Your task to perform on an android device: clear history in the chrome app Image 0: 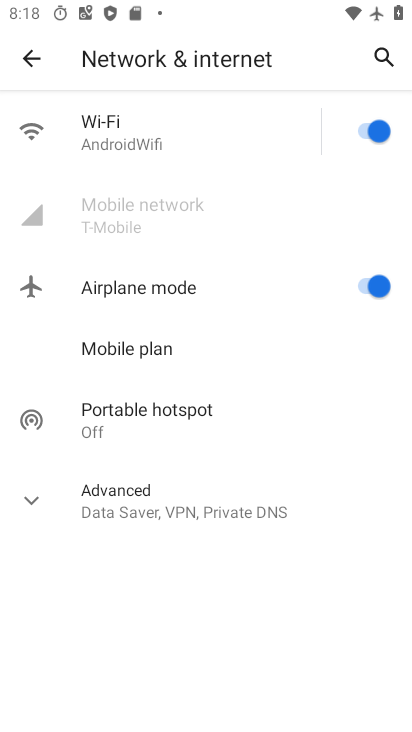
Step 0: click (19, 57)
Your task to perform on an android device: clear history in the chrome app Image 1: 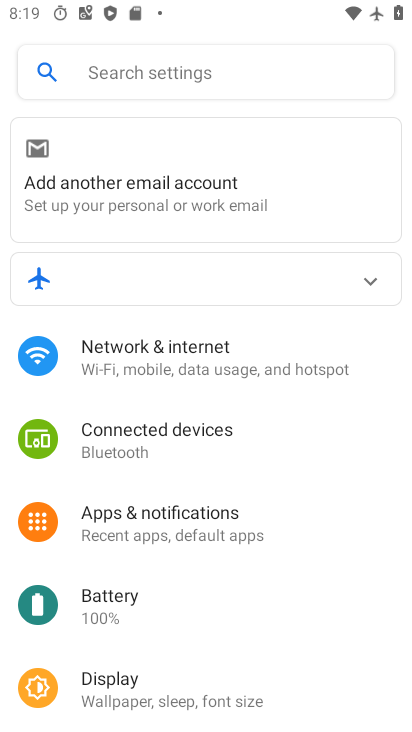
Step 1: press back button
Your task to perform on an android device: clear history in the chrome app Image 2: 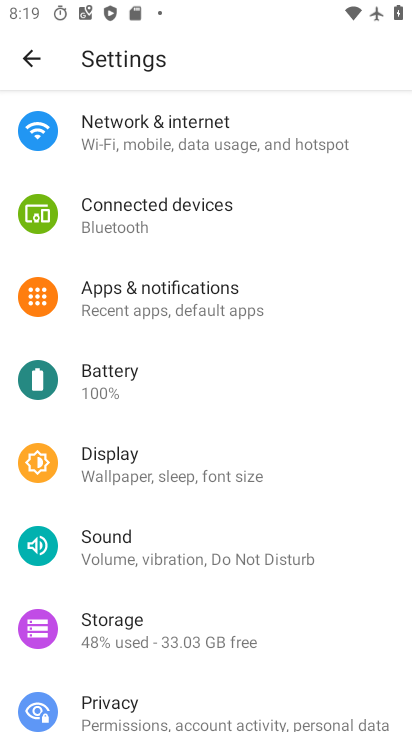
Step 2: press home button
Your task to perform on an android device: clear history in the chrome app Image 3: 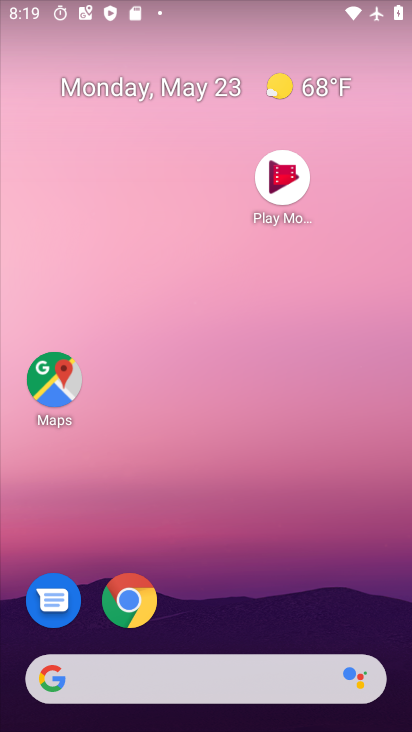
Step 3: drag from (254, 670) to (235, 348)
Your task to perform on an android device: clear history in the chrome app Image 4: 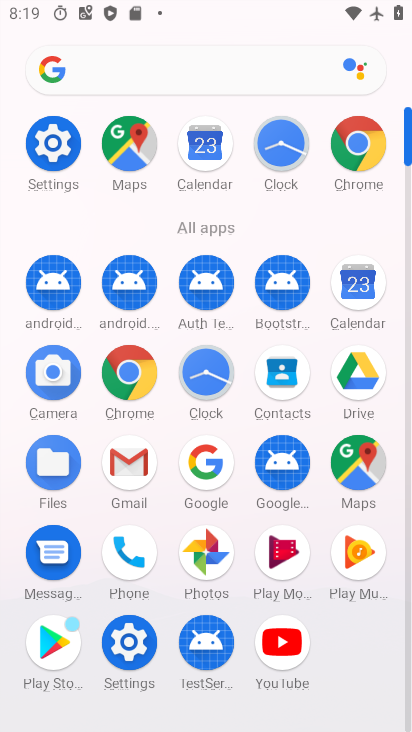
Step 4: click (373, 143)
Your task to perform on an android device: clear history in the chrome app Image 5: 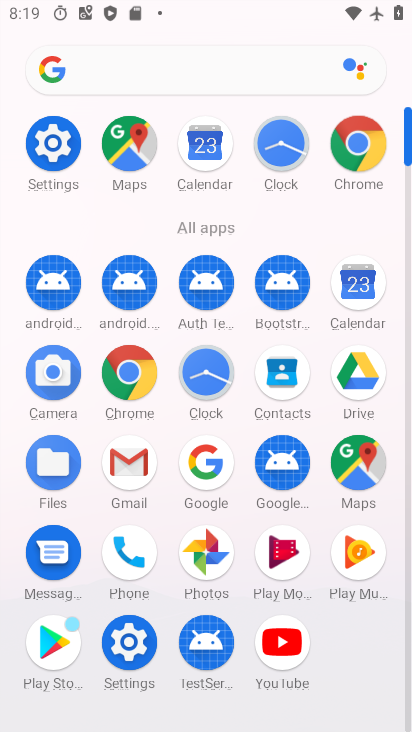
Step 5: click (373, 143)
Your task to perform on an android device: clear history in the chrome app Image 6: 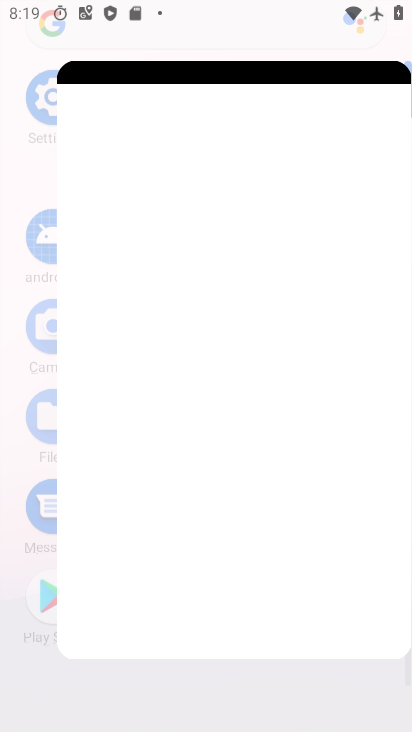
Step 6: click (372, 143)
Your task to perform on an android device: clear history in the chrome app Image 7: 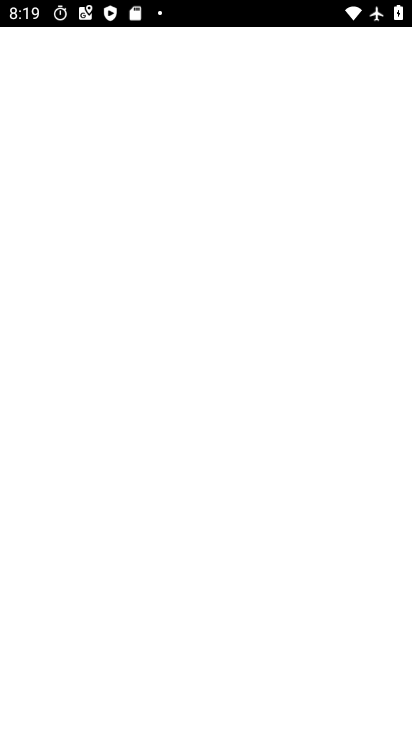
Step 7: click (363, 145)
Your task to perform on an android device: clear history in the chrome app Image 8: 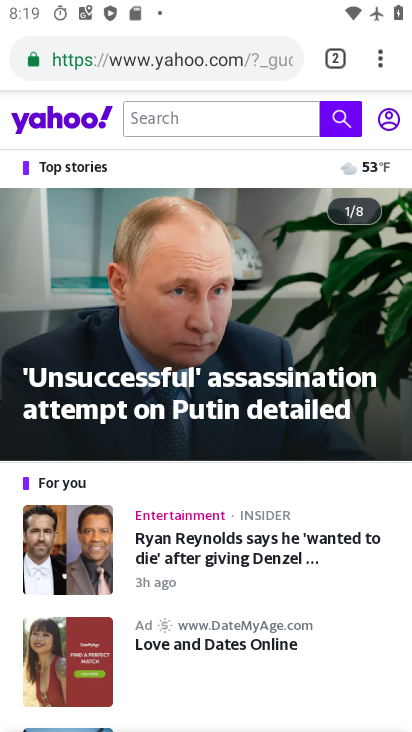
Step 8: drag from (378, 65) to (167, 350)
Your task to perform on an android device: clear history in the chrome app Image 9: 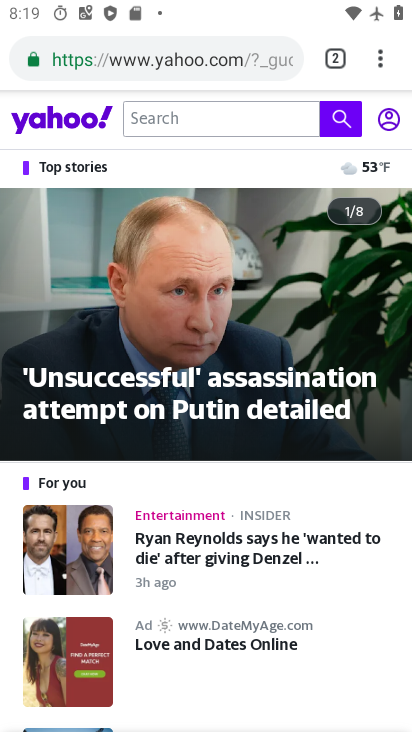
Step 9: click (160, 337)
Your task to perform on an android device: clear history in the chrome app Image 10: 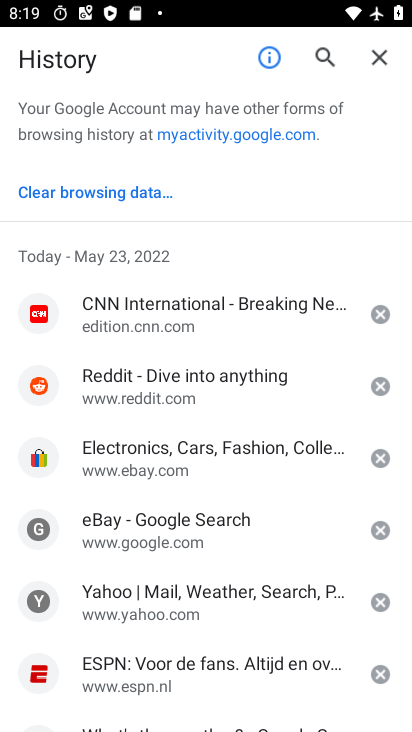
Step 10: click (114, 187)
Your task to perform on an android device: clear history in the chrome app Image 11: 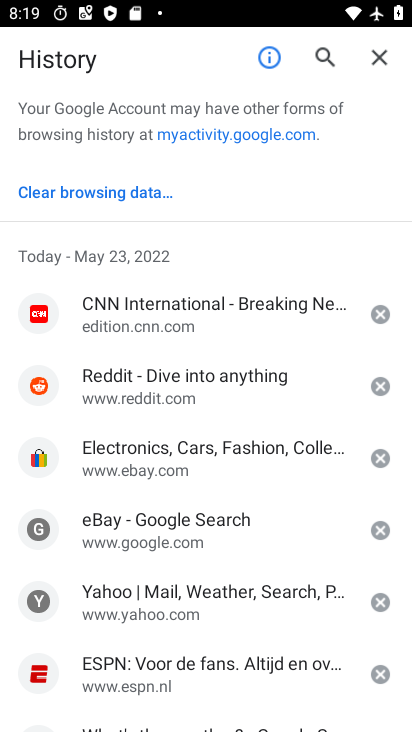
Step 11: click (110, 185)
Your task to perform on an android device: clear history in the chrome app Image 12: 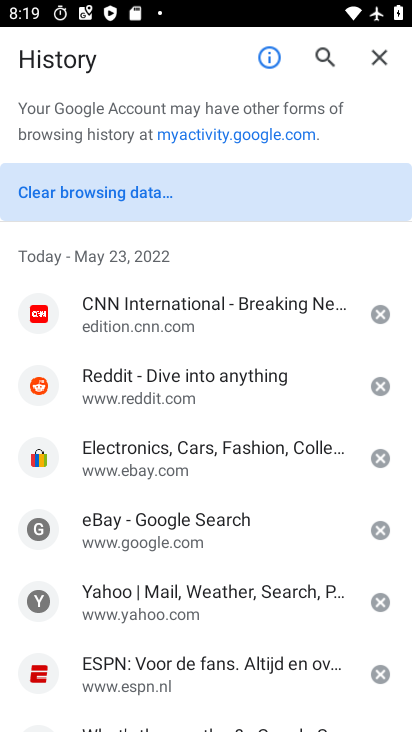
Step 12: click (110, 179)
Your task to perform on an android device: clear history in the chrome app Image 13: 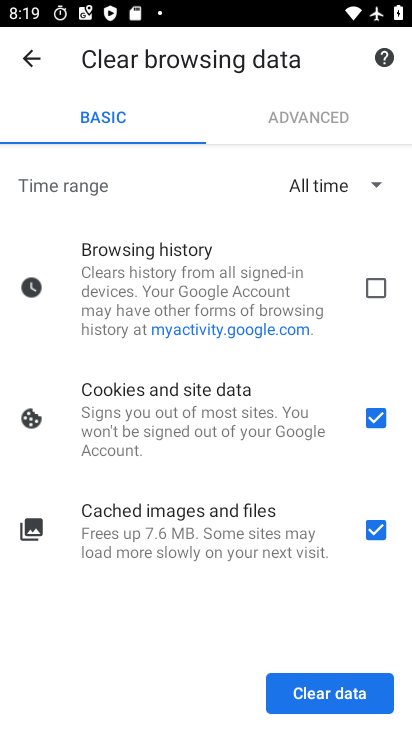
Step 13: click (330, 698)
Your task to perform on an android device: clear history in the chrome app Image 14: 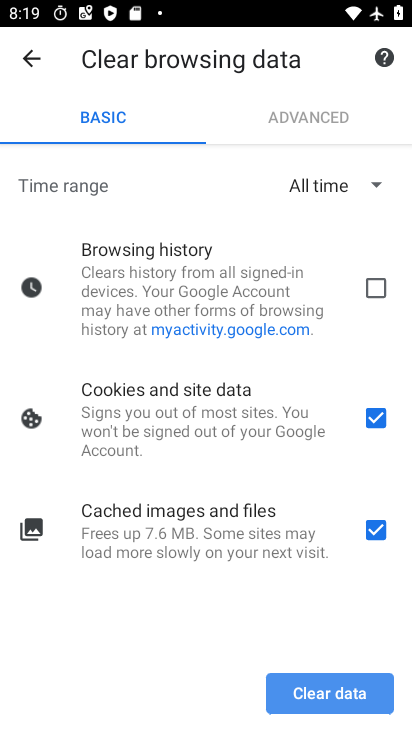
Step 14: click (340, 700)
Your task to perform on an android device: clear history in the chrome app Image 15: 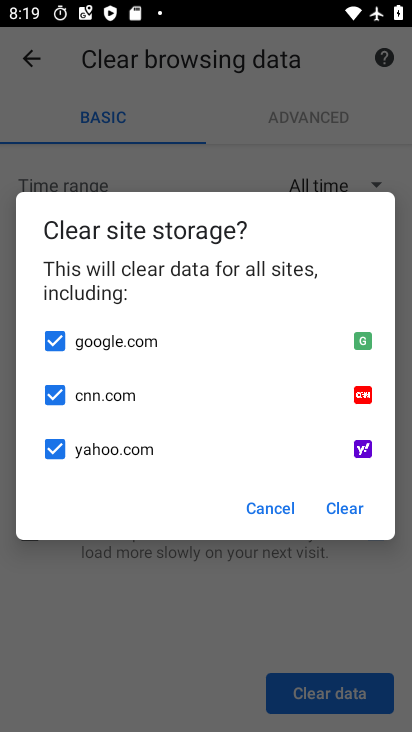
Step 15: click (337, 510)
Your task to perform on an android device: clear history in the chrome app Image 16: 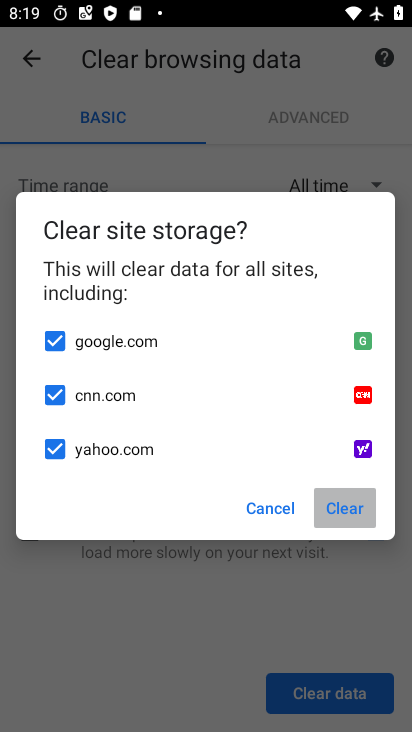
Step 16: click (338, 510)
Your task to perform on an android device: clear history in the chrome app Image 17: 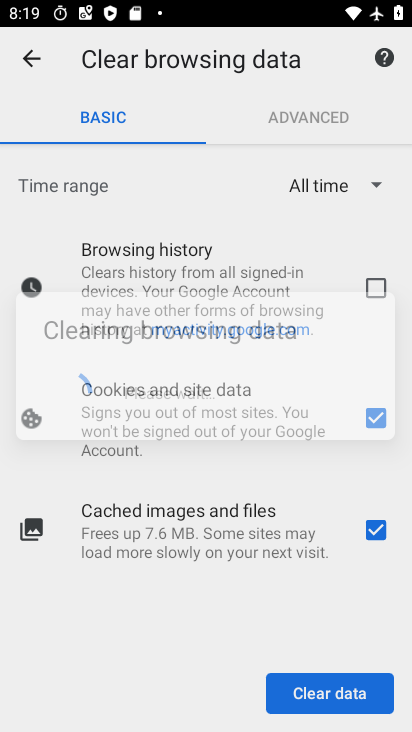
Step 17: click (342, 512)
Your task to perform on an android device: clear history in the chrome app Image 18: 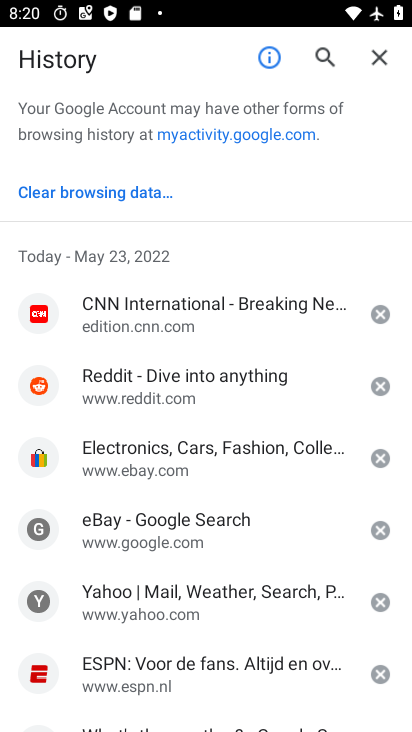
Step 18: click (110, 192)
Your task to perform on an android device: clear history in the chrome app Image 19: 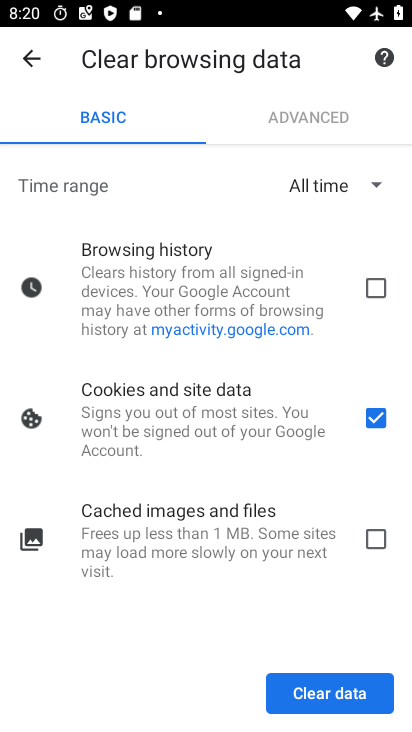
Step 19: click (331, 696)
Your task to perform on an android device: clear history in the chrome app Image 20: 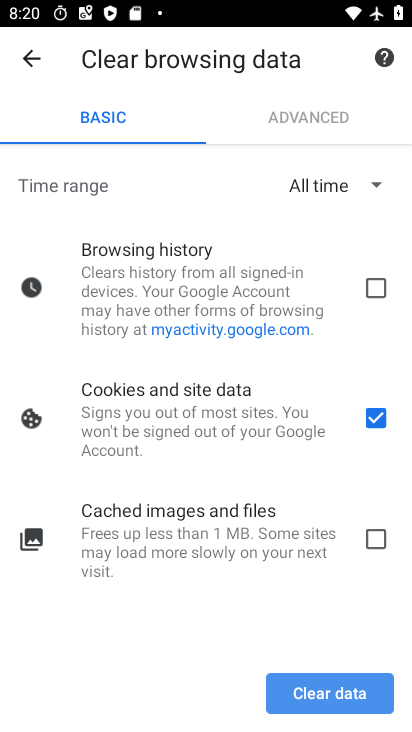
Step 20: click (331, 696)
Your task to perform on an android device: clear history in the chrome app Image 21: 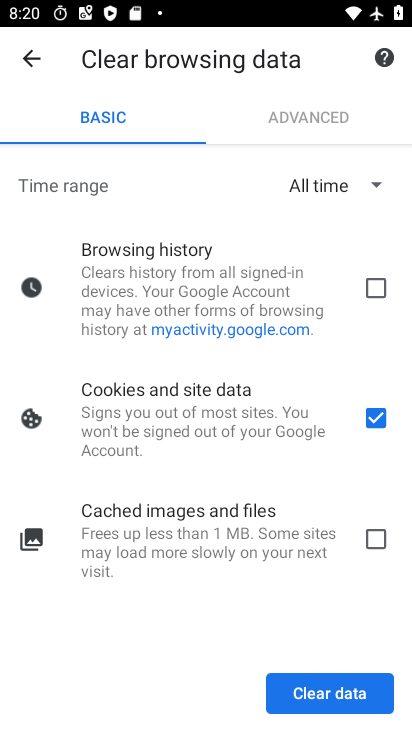
Step 21: task complete